Your task to perform on an android device: add a contact in the contacts app Image 0: 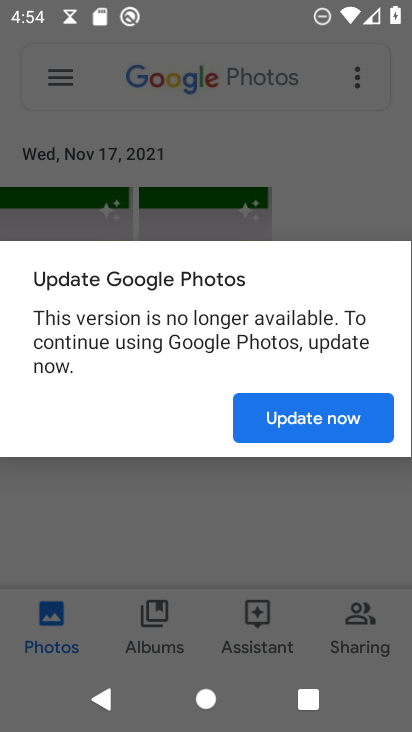
Step 0: press home button
Your task to perform on an android device: add a contact in the contacts app Image 1: 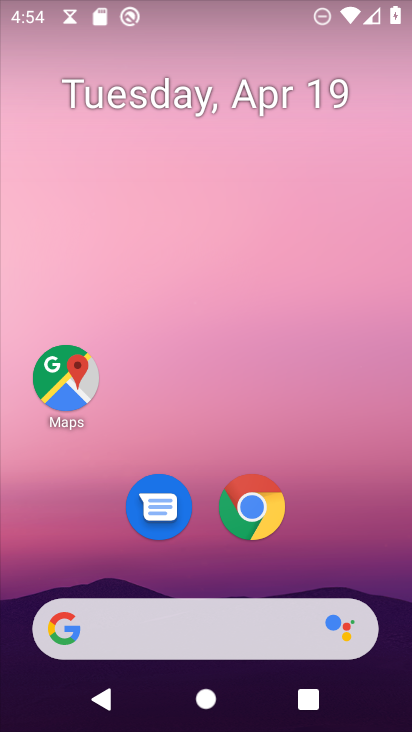
Step 1: drag from (335, 572) to (370, 35)
Your task to perform on an android device: add a contact in the contacts app Image 2: 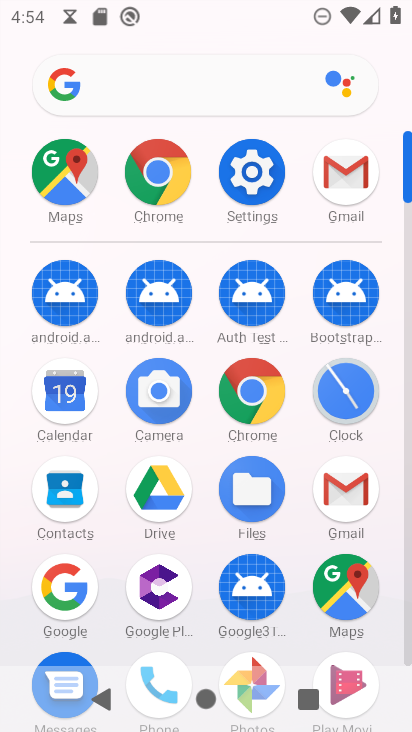
Step 2: click (55, 499)
Your task to perform on an android device: add a contact in the contacts app Image 3: 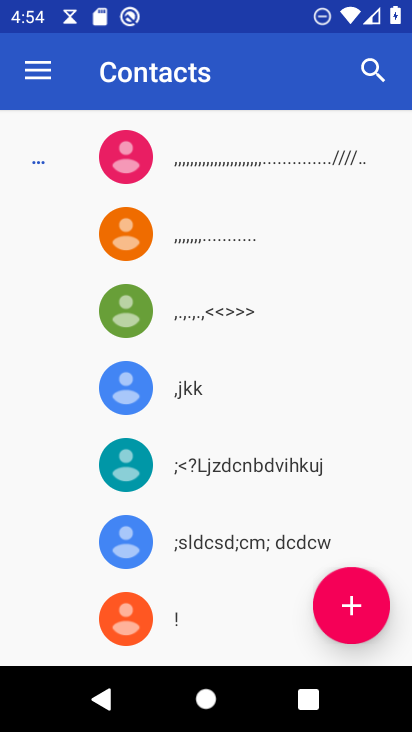
Step 3: click (349, 614)
Your task to perform on an android device: add a contact in the contacts app Image 4: 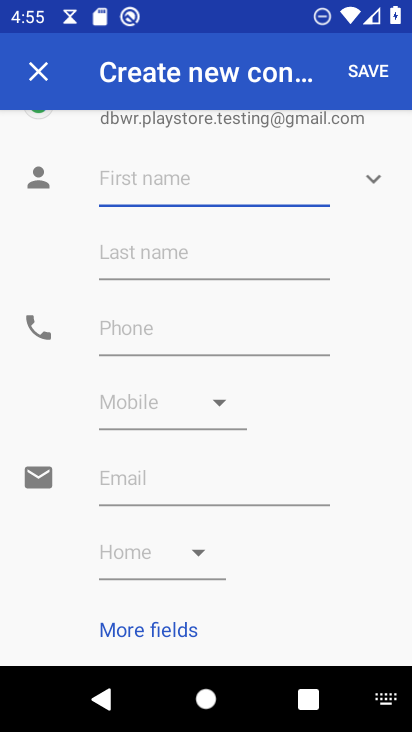
Step 4: type "yyuujjhhllhlh"
Your task to perform on an android device: add a contact in the contacts app Image 5: 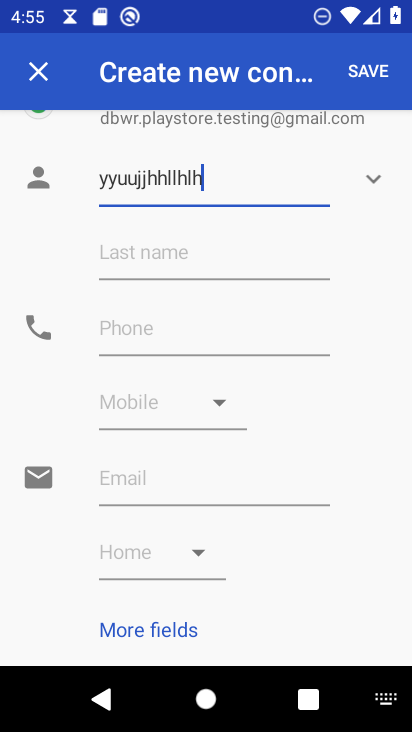
Step 5: click (142, 339)
Your task to perform on an android device: add a contact in the contacts app Image 6: 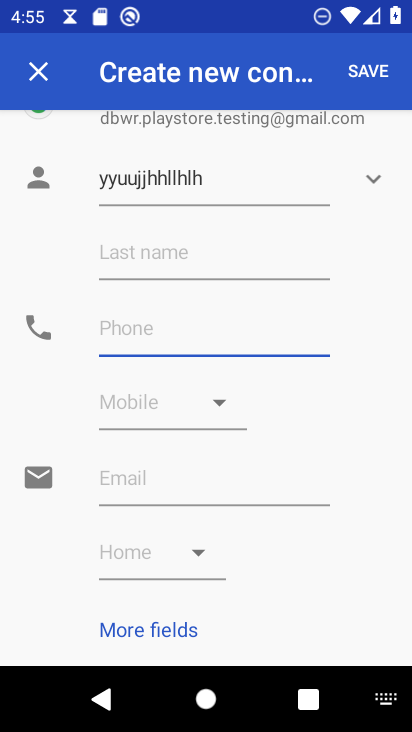
Step 6: type "9998889998889"
Your task to perform on an android device: add a contact in the contacts app Image 7: 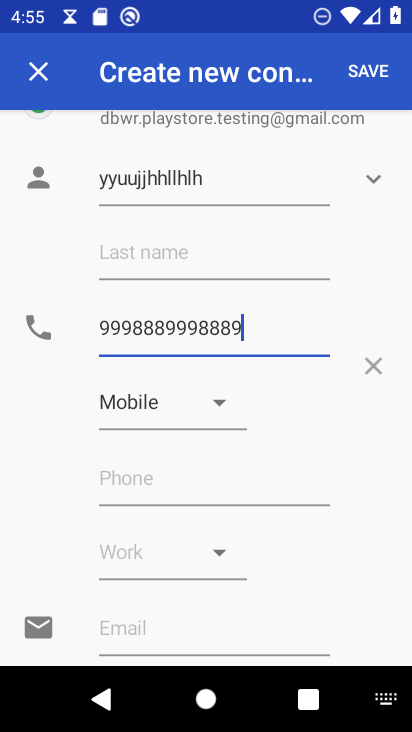
Step 7: click (382, 70)
Your task to perform on an android device: add a contact in the contacts app Image 8: 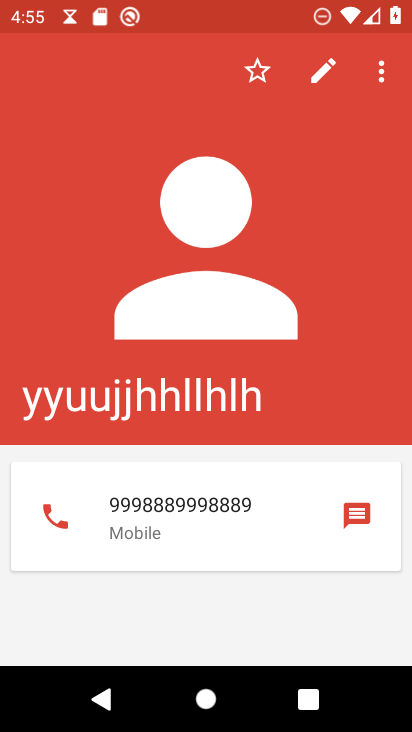
Step 8: task complete